Your task to perform on an android device: check the backup settings in the google photos Image 0: 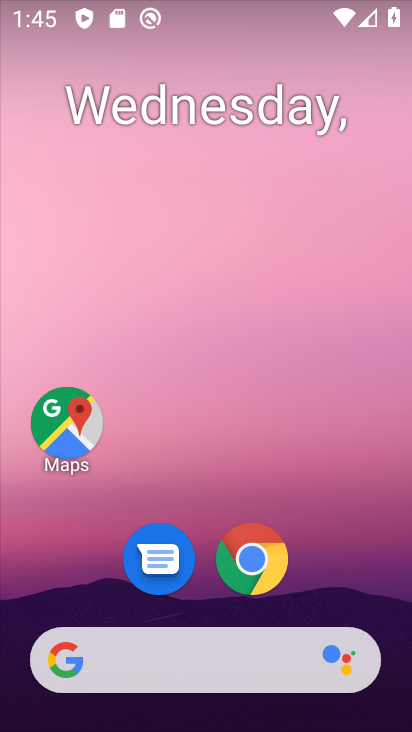
Step 0: drag from (342, 572) to (201, 47)
Your task to perform on an android device: check the backup settings in the google photos Image 1: 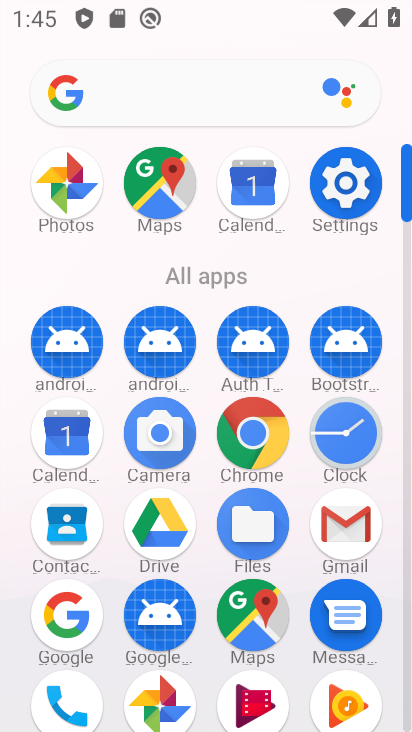
Step 1: click (67, 180)
Your task to perform on an android device: check the backup settings in the google photos Image 2: 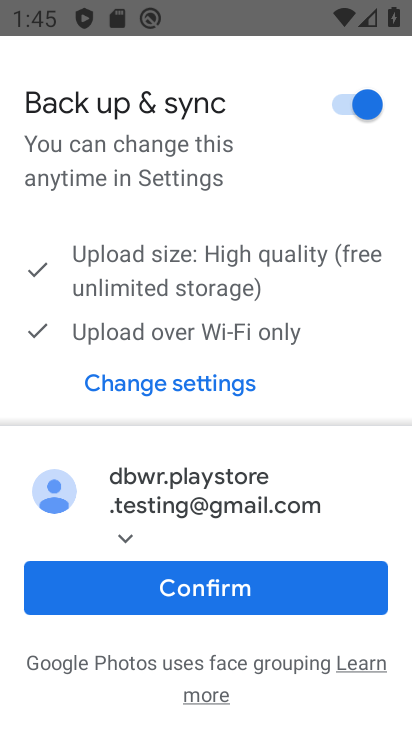
Step 2: click (182, 583)
Your task to perform on an android device: check the backup settings in the google photos Image 3: 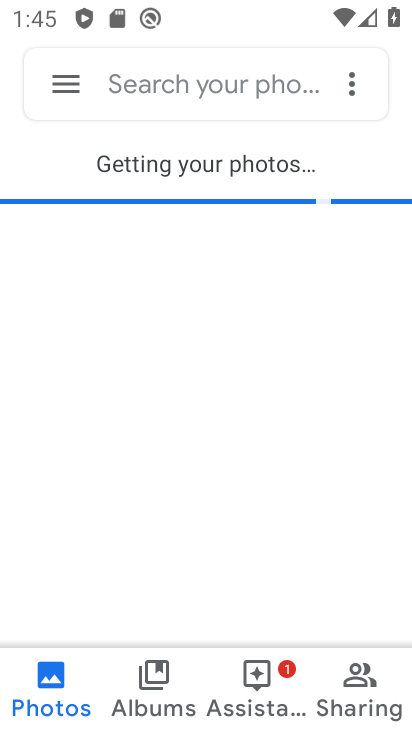
Step 3: click (71, 83)
Your task to perform on an android device: check the backup settings in the google photos Image 4: 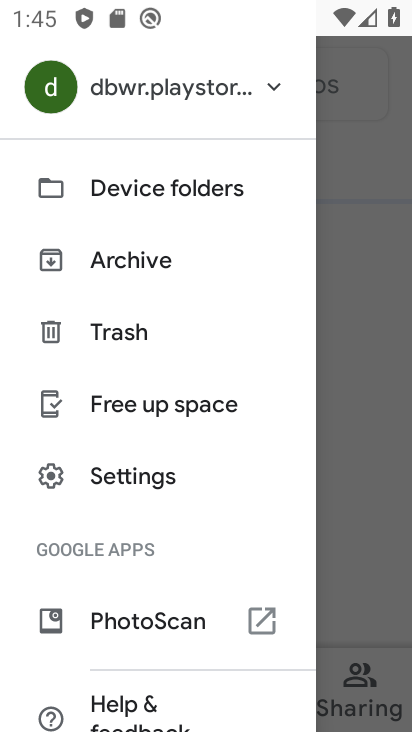
Step 4: click (126, 474)
Your task to perform on an android device: check the backup settings in the google photos Image 5: 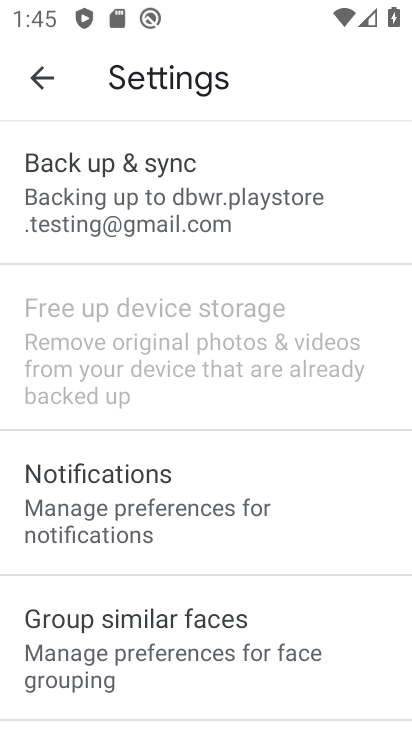
Step 5: click (135, 183)
Your task to perform on an android device: check the backup settings in the google photos Image 6: 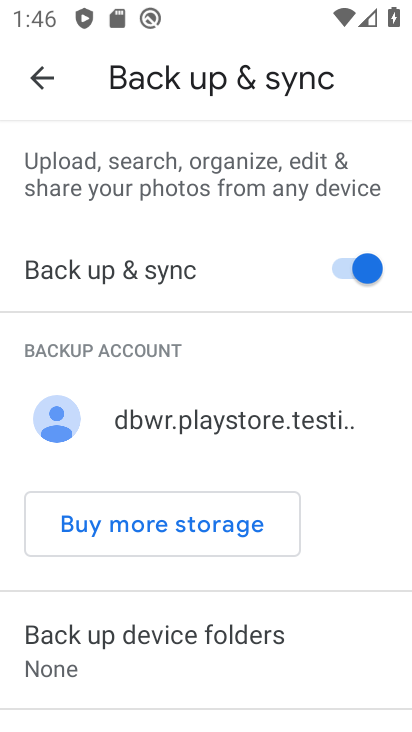
Step 6: task complete